Your task to perform on an android device: add a contact in the contacts app Image 0: 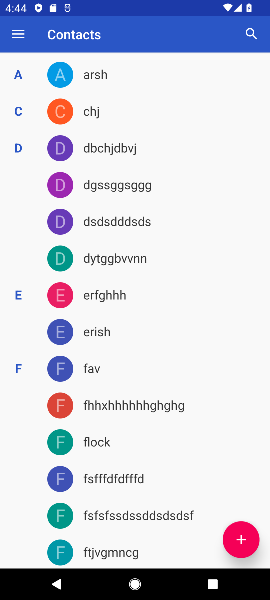
Step 0: press home button
Your task to perform on an android device: add a contact in the contacts app Image 1: 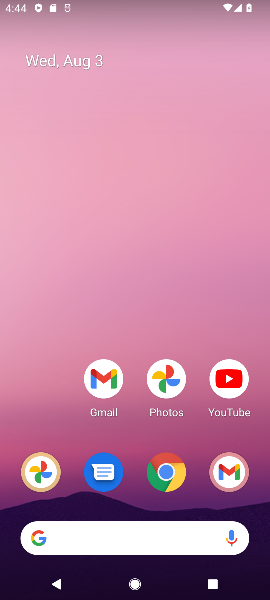
Step 1: drag from (127, 432) to (123, 0)
Your task to perform on an android device: add a contact in the contacts app Image 2: 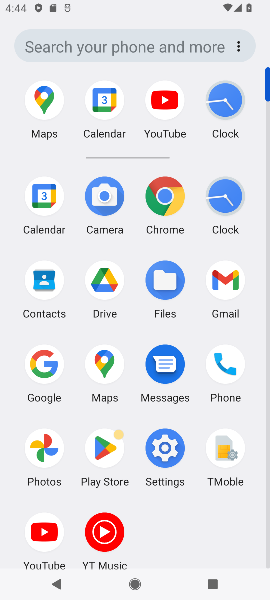
Step 2: click (43, 290)
Your task to perform on an android device: add a contact in the contacts app Image 3: 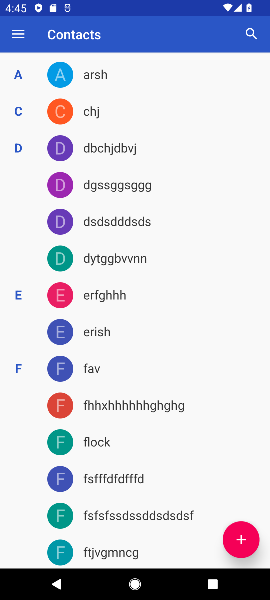
Step 3: click (248, 549)
Your task to perform on an android device: add a contact in the contacts app Image 4: 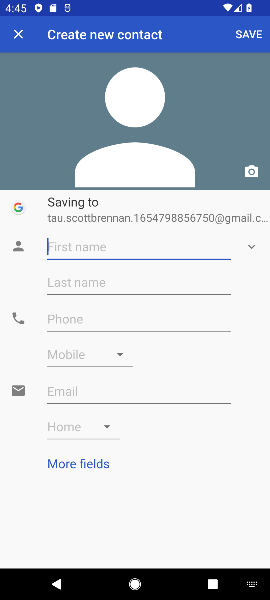
Step 4: type "hol"
Your task to perform on an android device: add a contact in the contacts app Image 5: 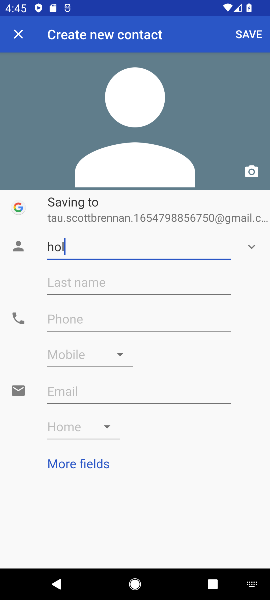
Step 5: click (253, 34)
Your task to perform on an android device: add a contact in the contacts app Image 6: 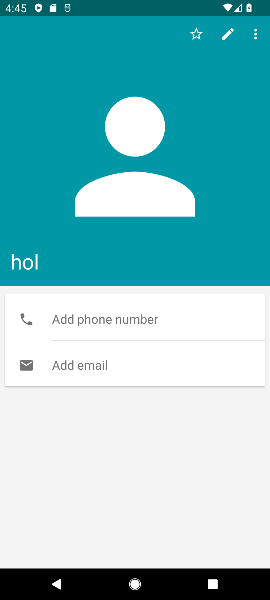
Step 6: task complete